Your task to perform on an android device: Search for vegetarian restaurants on Maps Image 0: 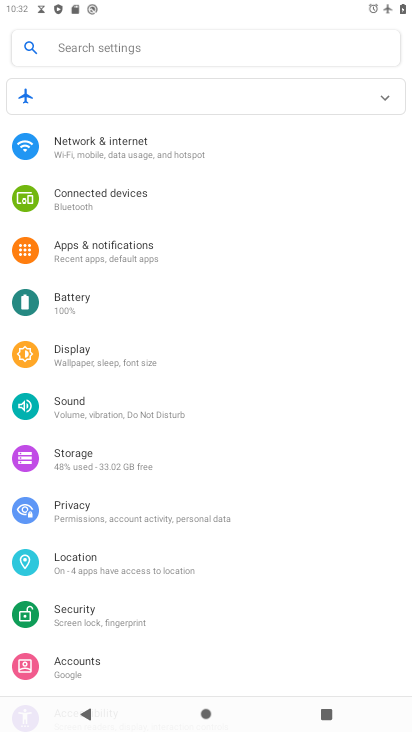
Step 0: press home button
Your task to perform on an android device: Search for vegetarian restaurants on Maps Image 1: 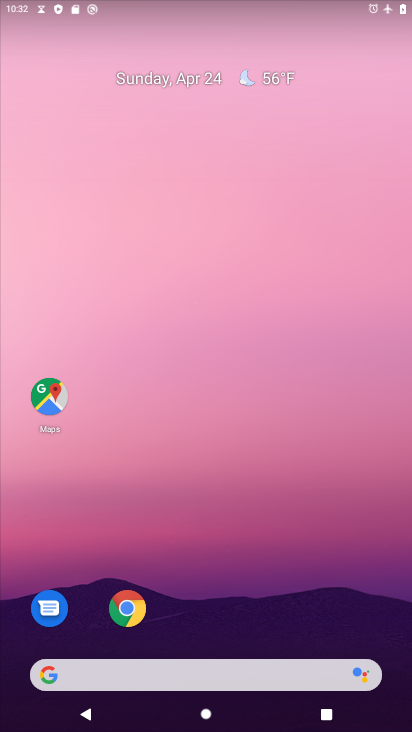
Step 1: drag from (192, 645) to (253, 8)
Your task to perform on an android device: Search for vegetarian restaurants on Maps Image 2: 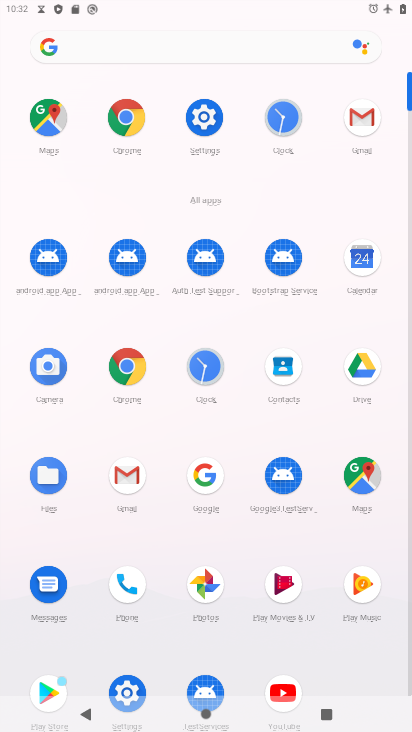
Step 2: click (365, 462)
Your task to perform on an android device: Search for vegetarian restaurants on Maps Image 3: 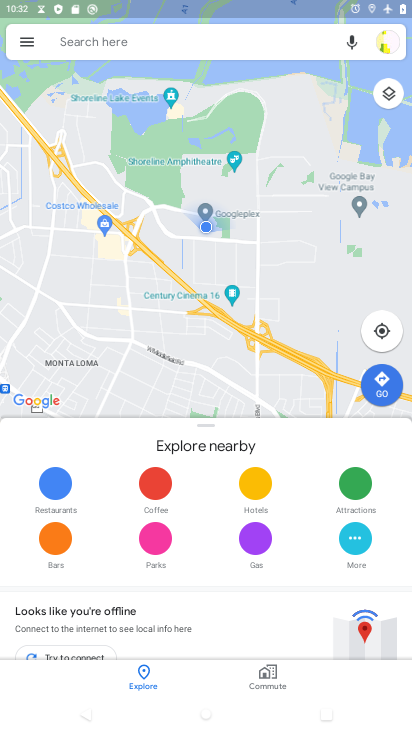
Step 3: click (172, 54)
Your task to perform on an android device: Search for vegetarian restaurants on Maps Image 4: 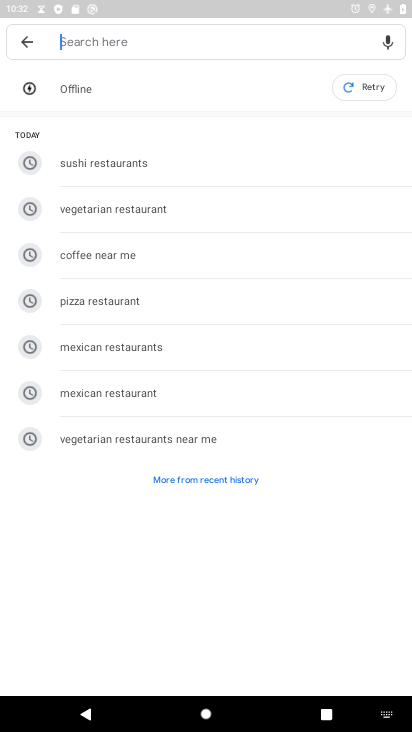
Step 4: click (121, 215)
Your task to perform on an android device: Search for vegetarian restaurants on Maps Image 5: 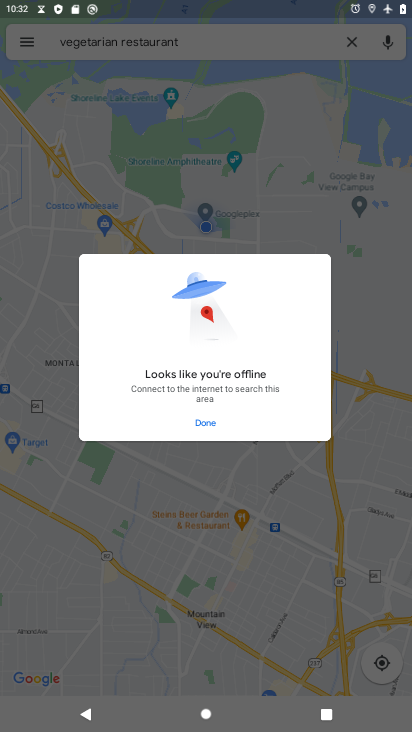
Step 5: click (202, 412)
Your task to perform on an android device: Search for vegetarian restaurants on Maps Image 6: 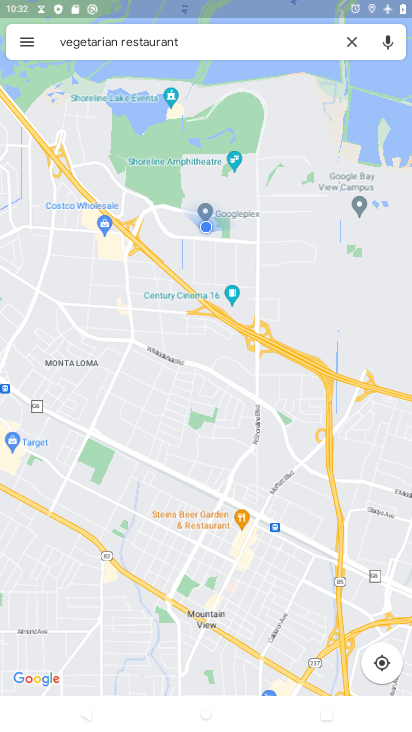
Step 6: task complete